Your task to perform on an android device: What's the weather going to be this weekend? Image 0: 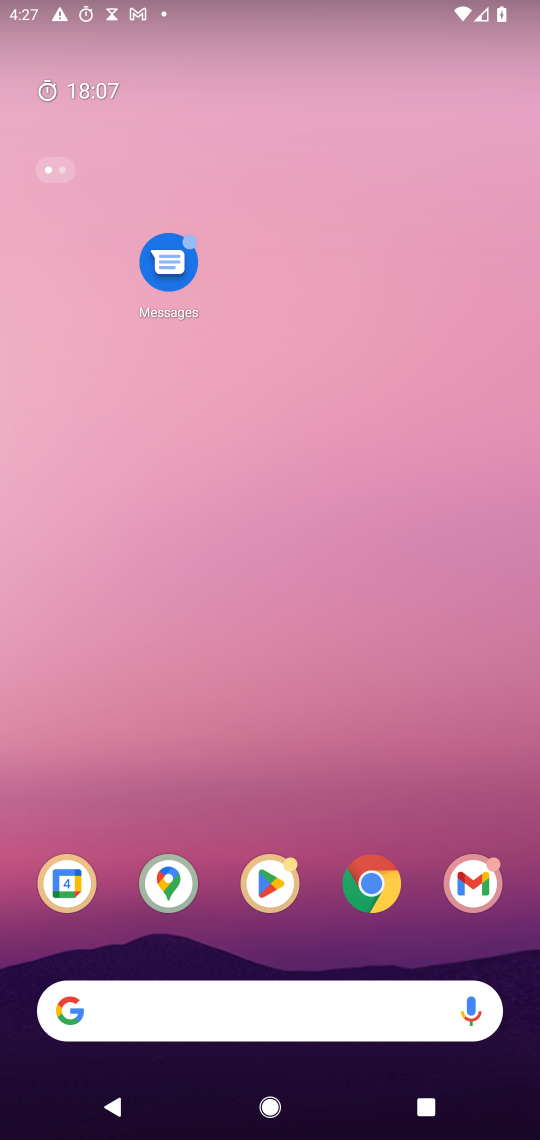
Step 0: drag from (314, 935) to (303, 86)
Your task to perform on an android device: What's the weather going to be this weekend? Image 1: 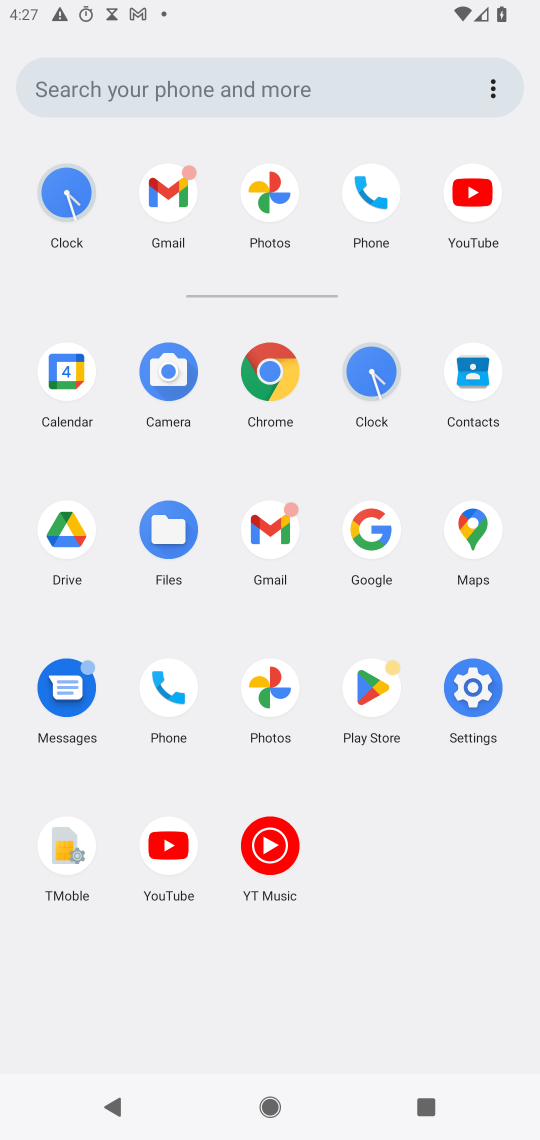
Step 1: click (372, 525)
Your task to perform on an android device: What's the weather going to be this weekend? Image 2: 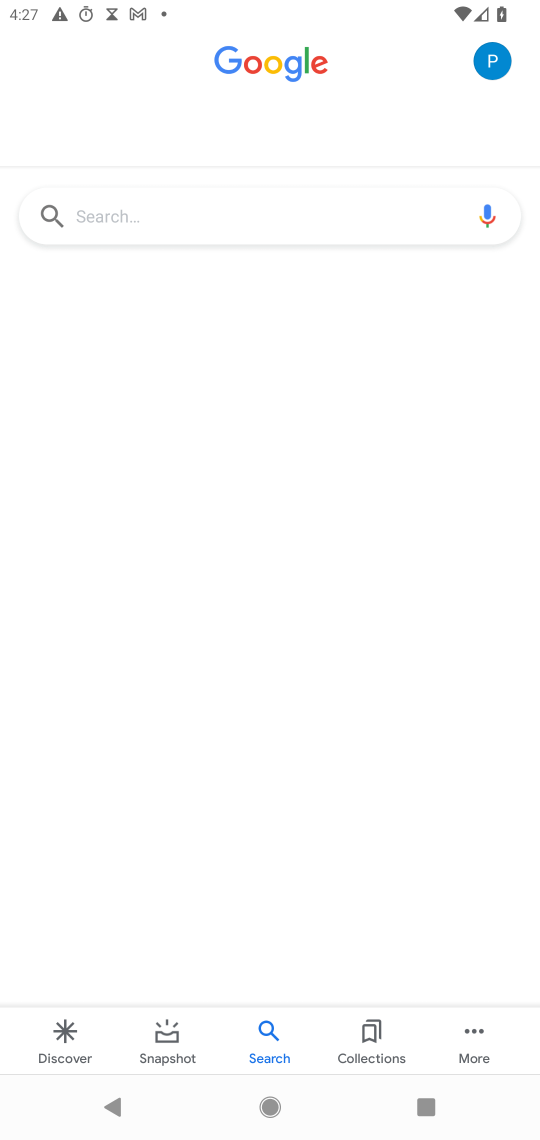
Step 2: click (254, 214)
Your task to perform on an android device: What's the weather going to be this weekend? Image 3: 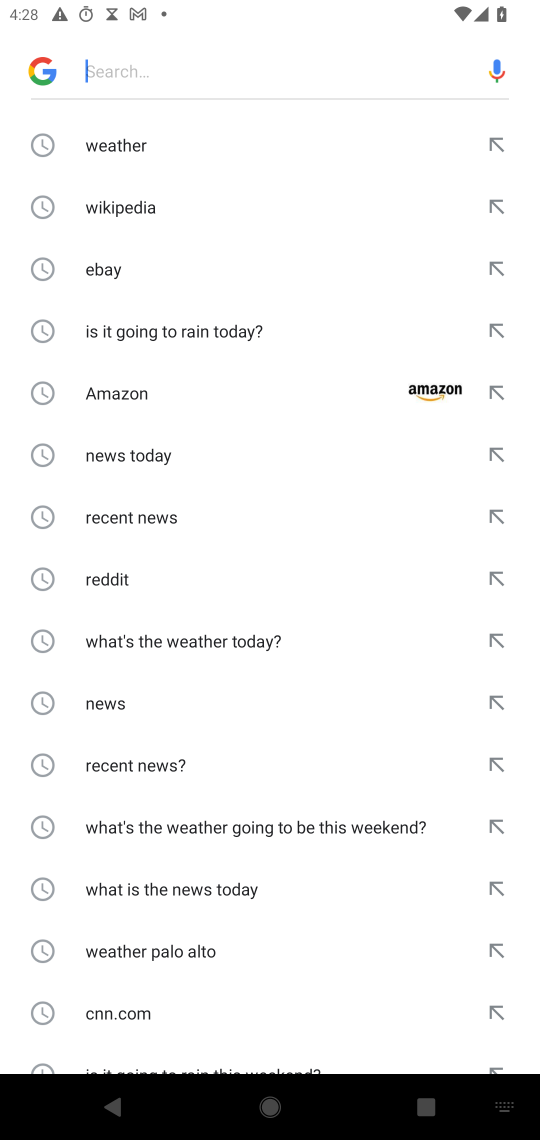
Step 3: click (115, 141)
Your task to perform on an android device: What's the weather going to be this weekend? Image 4: 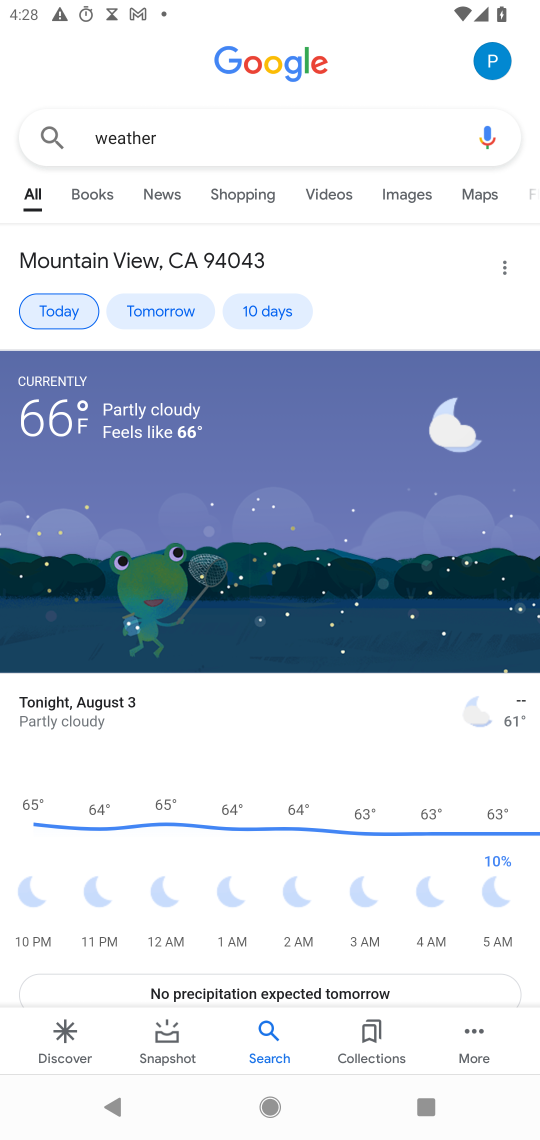
Step 4: click (279, 310)
Your task to perform on an android device: What's the weather going to be this weekend? Image 5: 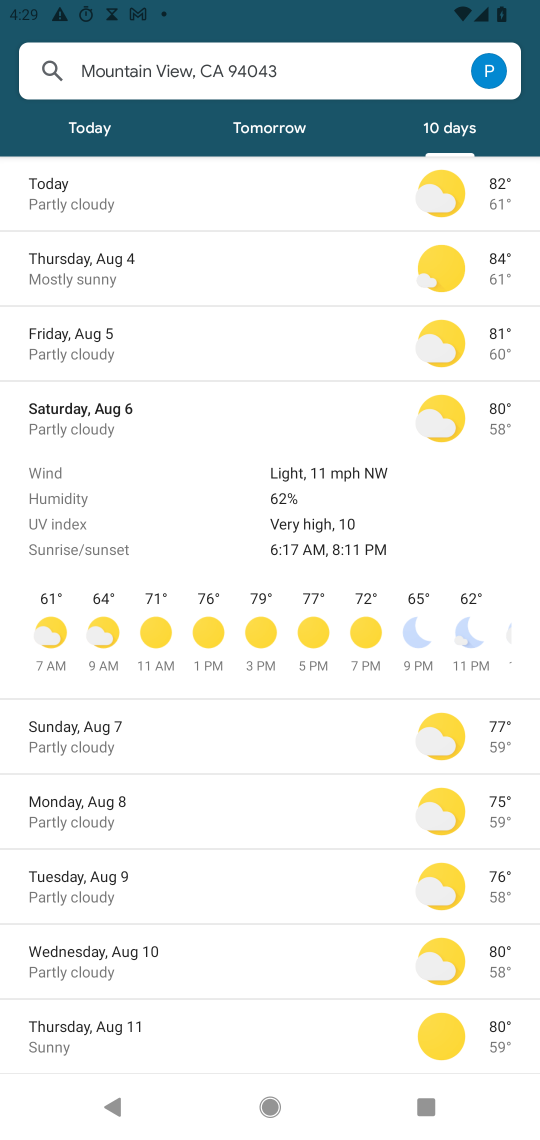
Step 5: task complete